Your task to perform on an android device: Open wifi settings Image 0: 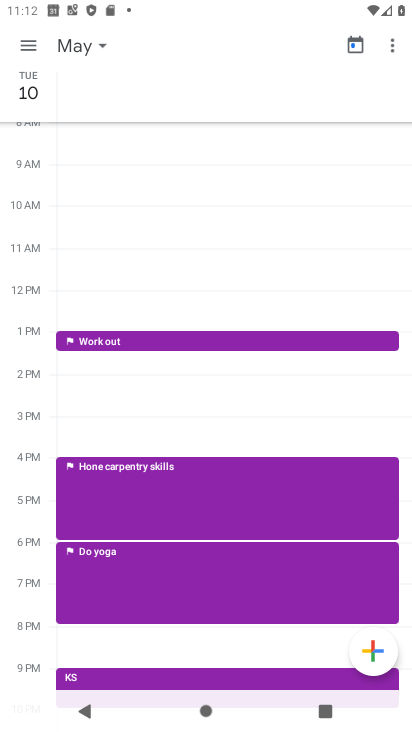
Step 0: press home button
Your task to perform on an android device: Open wifi settings Image 1: 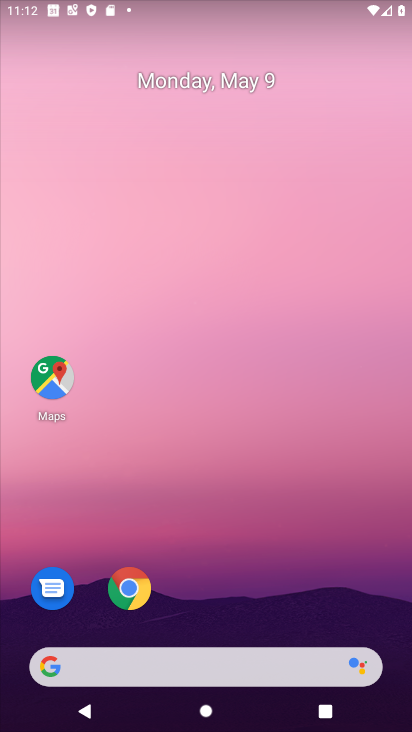
Step 1: drag from (217, 644) to (160, 34)
Your task to perform on an android device: Open wifi settings Image 2: 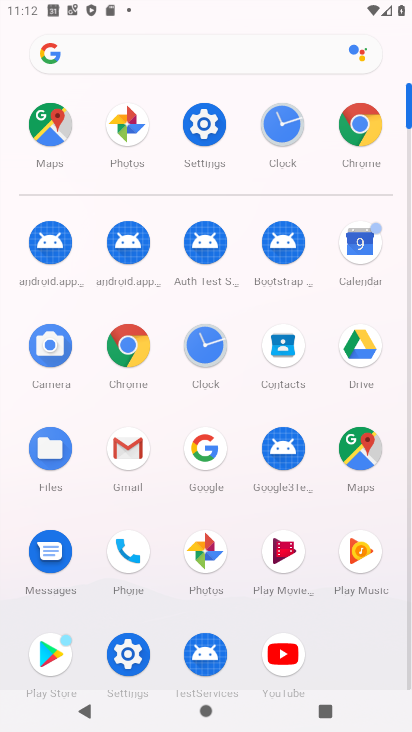
Step 2: click (193, 117)
Your task to perform on an android device: Open wifi settings Image 3: 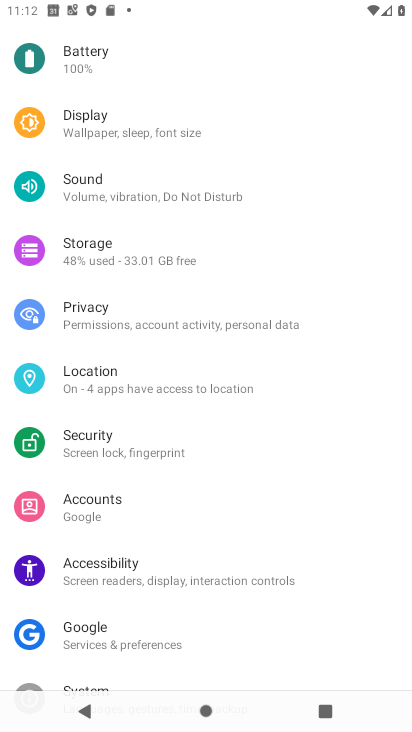
Step 3: drag from (146, 254) to (107, 728)
Your task to perform on an android device: Open wifi settings Image 4: 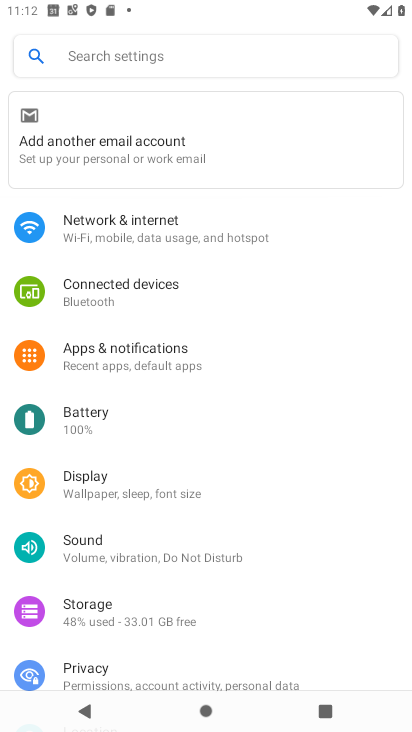
Step 4: click (95, 236)
Your task to perform on an android device: Open wifi settings Image 5: 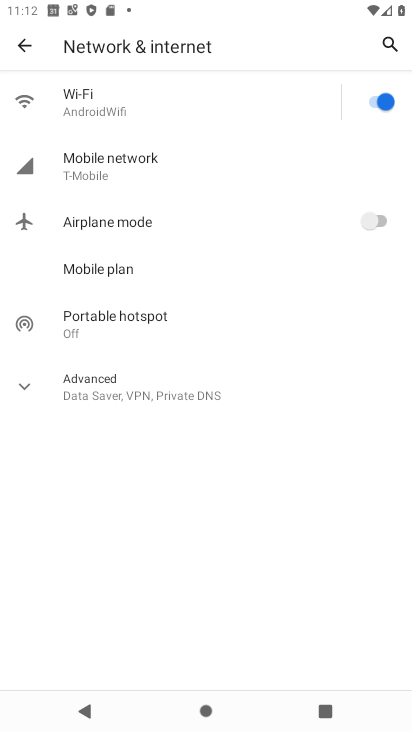
Step 5: click (110, 89)
Your task to perform on an android device: Open wifi settings Image 6: 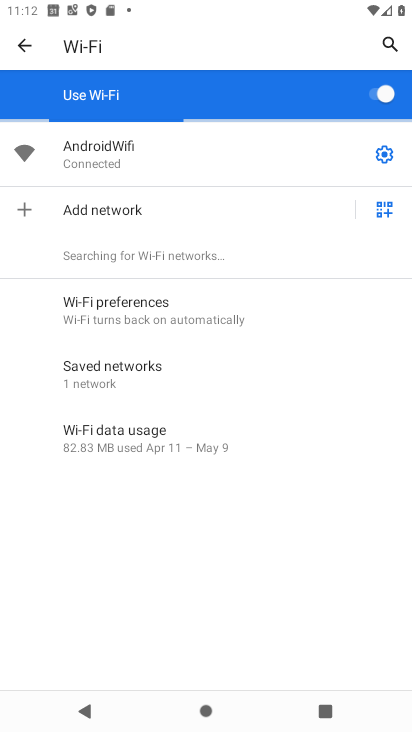
Step 6: task complete